Your task to perform on an android device: Open Youtube and go to "Your channel" Image 0: 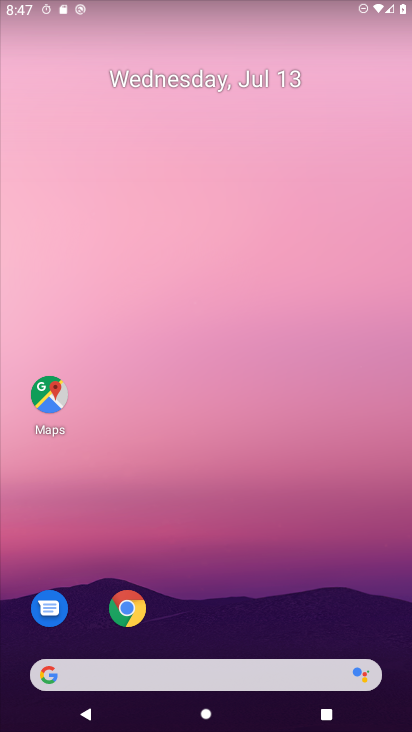
Step 0: drag from (240, 643) to (174, 172)
Your task to perform on an android device: Open Youtube and go to "Your channel" Image 1: 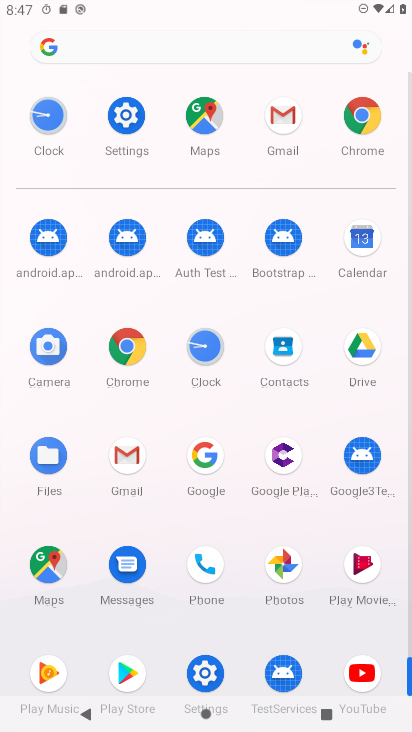
Step 1: click (357, 678)
Your task to perform on an android device: Open Youtube and go to "Your channel" Image 2: 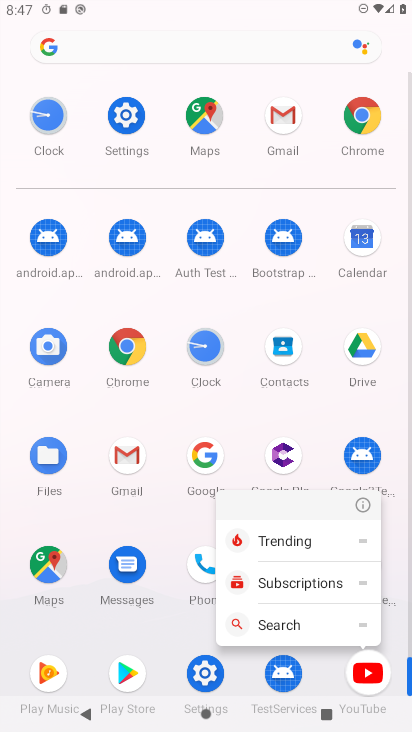
Step 2: click (364, 676)
Your task to perform on an android device: Open Youtube and go to "Your channel" Image 3: 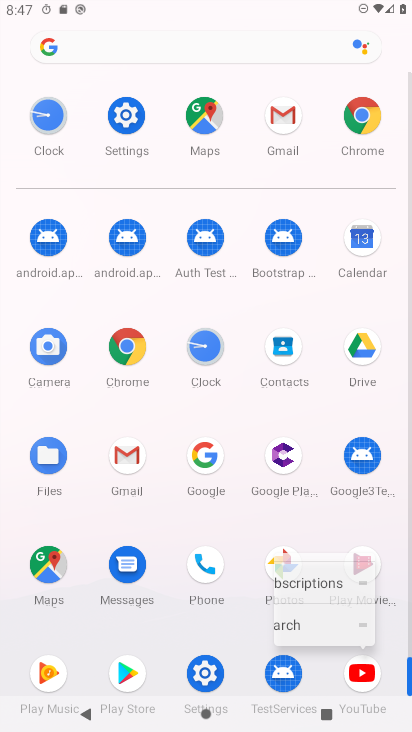
Step 3: click (368, 675)
Your task to perform on an android device: Open Youtube and go to "Your channel" Image 4: 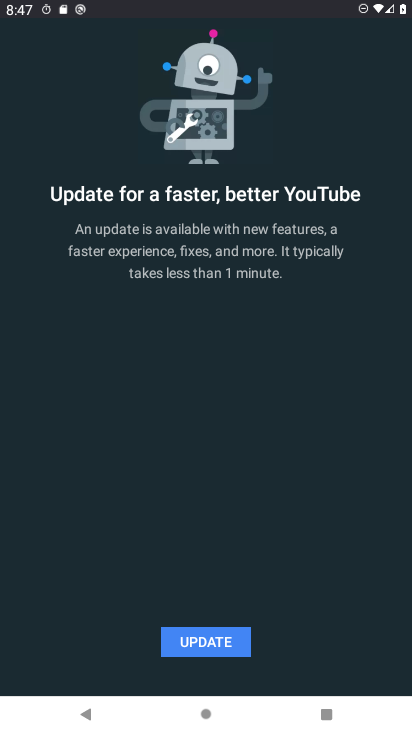
Step 4: click (193, 652)
Your task to perform on an android device: Open Youtube and go to "Your channel" Image 5: 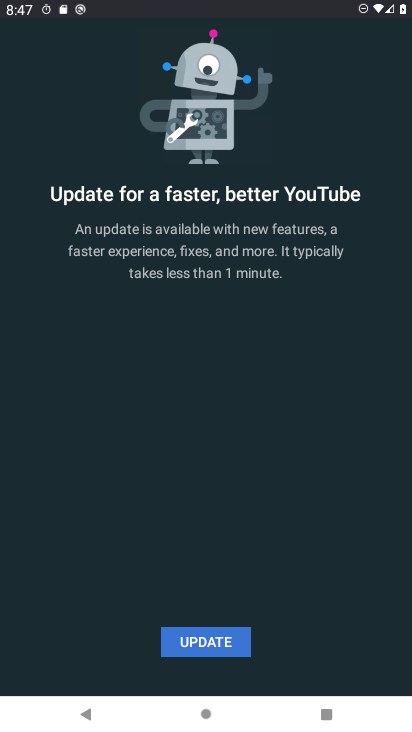
Step 5: click (193, 652)
Your task to perform on an android device: Open Youtube and go to "Your channel" Image 6: 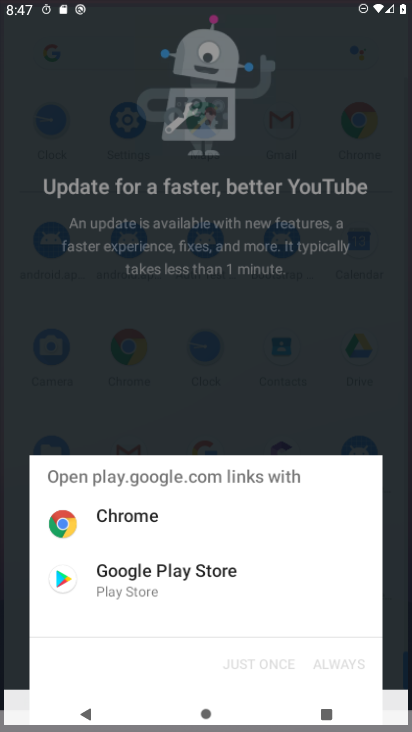
Step 6: click (195, 649)
Your task to perform on an android device: Open Youtube and go to "Your channel" Image 7: 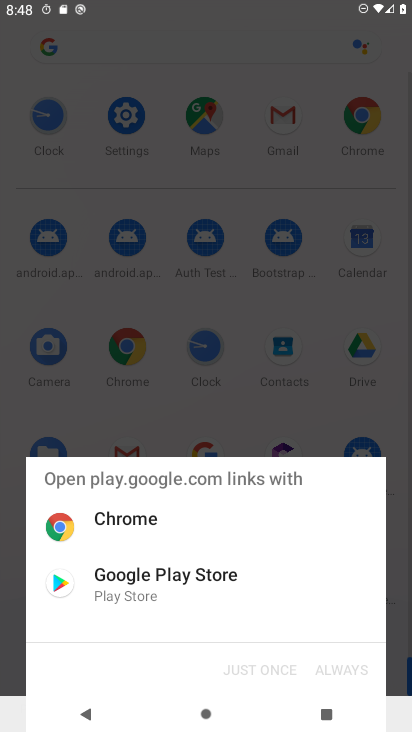
Step 7: click (116, 500)
Your task to perform on an android device: Open Youtube and go to "Your channel" Image 8: 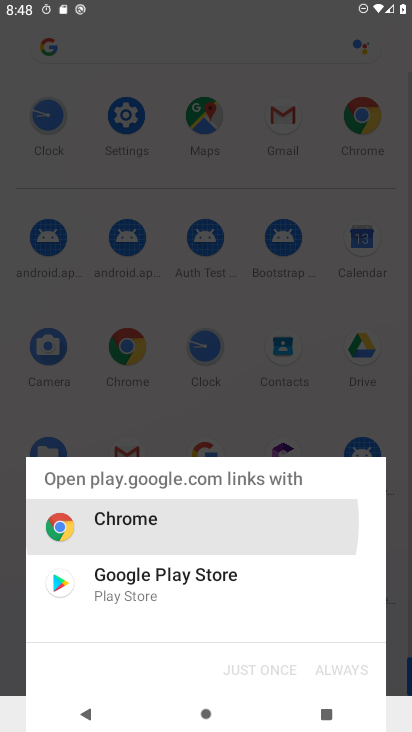
Step 8: click (116, 516)
Your task to perform on an android device: Open Youtube and go to "Your channel" Image 9: 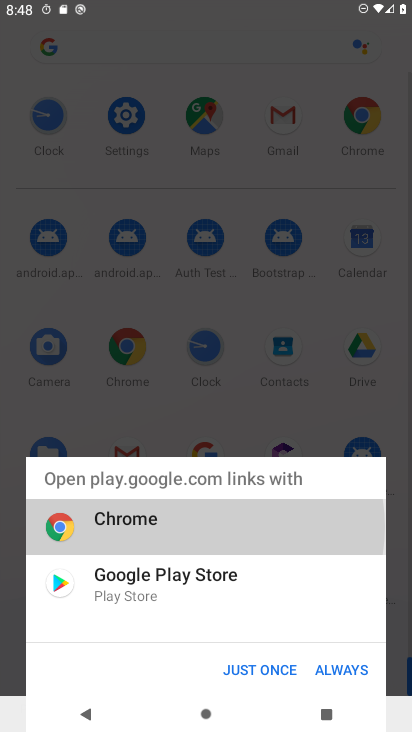
Step 9: click (183, 360)
Your task to perform on an android device: Open Youtube and go to "Your channel" Image 10: 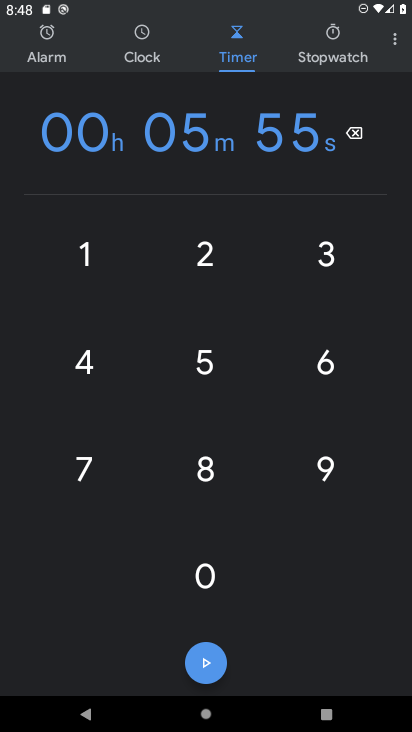
Step 10: task complete